Your task to perform on an android device: Open Yahoo.com Image 0: 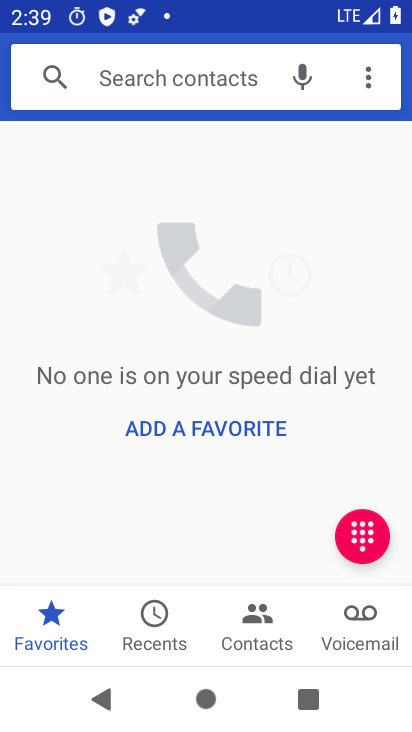
Step 0: press home button
Your task to perform on an android device: Open Yahoo.com Image 1: 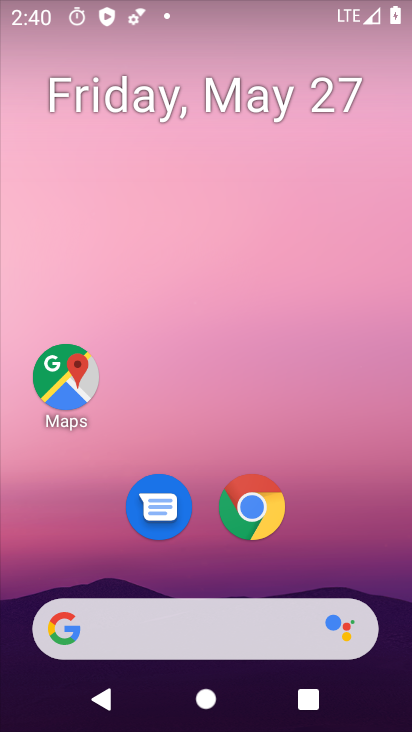
Step 1: drag from (152, 505) to (192, 233)
Your task to perform on an android device: Open Yahoo.com Image 2: 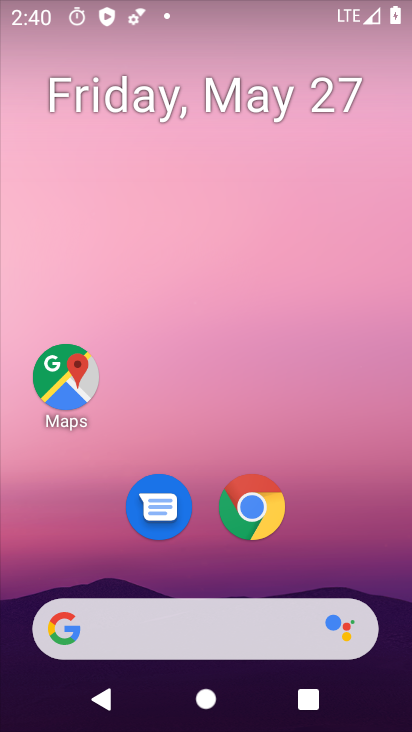
Step 2: drag from (200, 593) to (245, 139)
Your task to perform on an android device: Open Yahoo.com Image 3: 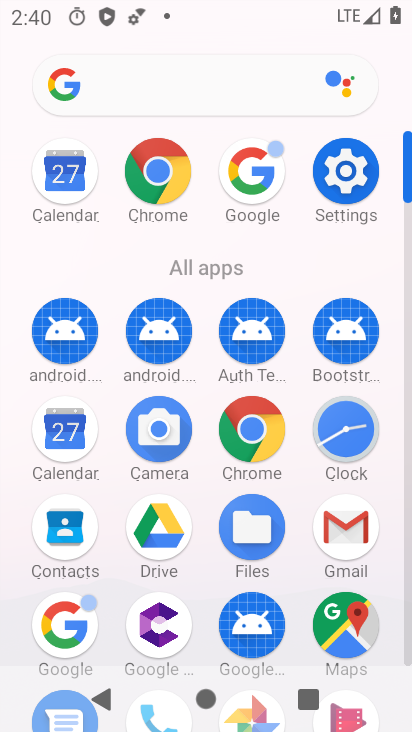
Step 3: click (246, 167)
Your task to perform on an android device: Open Yahoo.com Image 4: 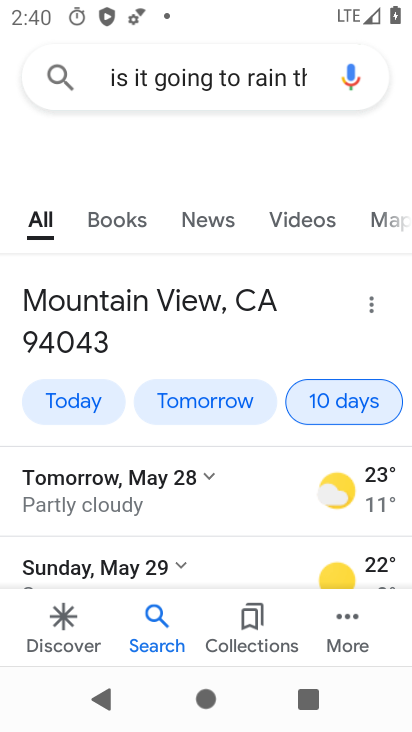
Step 4: click (103, 82)
Your task to perform on an android device: Open Yahoo.com Image 5: 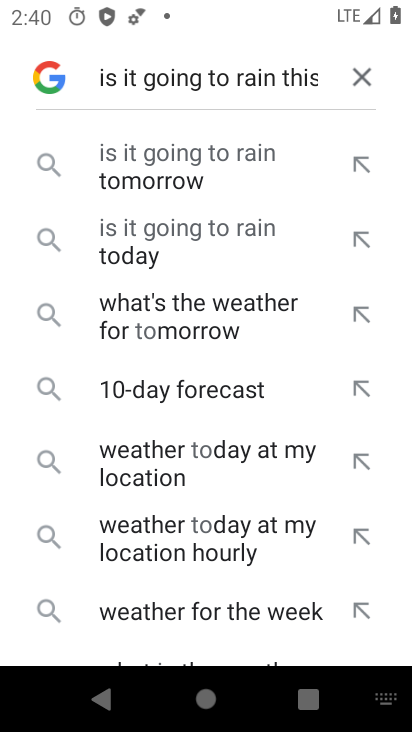
Step 5: click (353, 76)
Your task to perform on an android device: Open Yahoo.com Image 6: 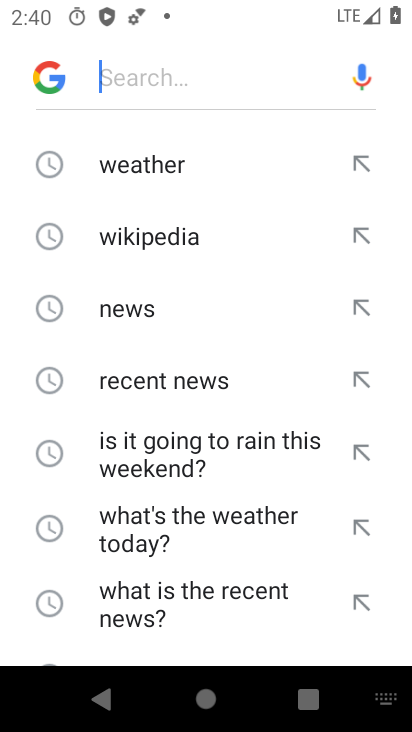
Step 6: drag from (174, 602) to (199, 164)
Your task to perform on an android device: Open Yahoo.com Image 7: 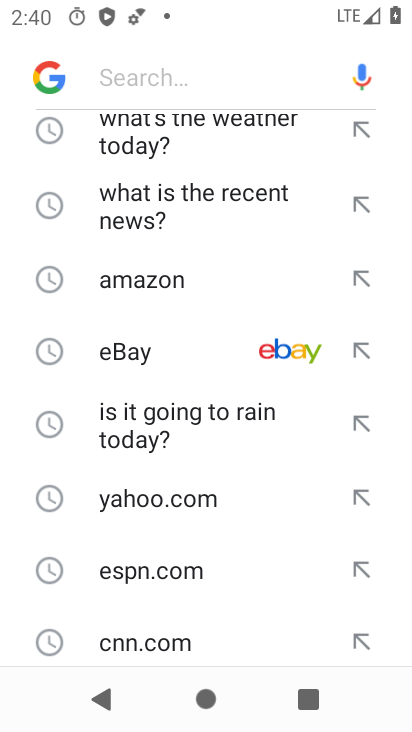
Step 7: click (144, 492)
Your task to perform on an android device: Open Yahoo.com Image 8: 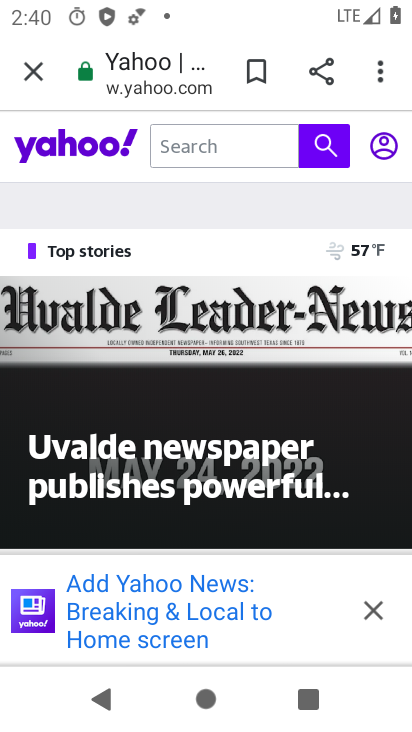
Step 8: task complete